Your task to perform on an android device: Open eBay Image 0: 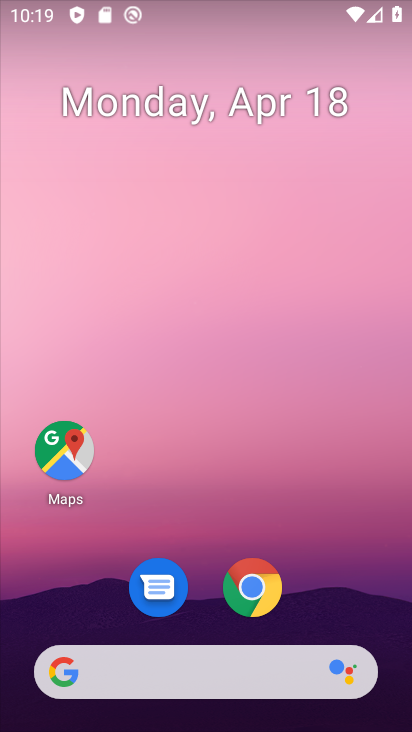
Step 0: drag from (363, 568) to (356, 77)
Your task to perform on an android device: Open eBay Image 1: 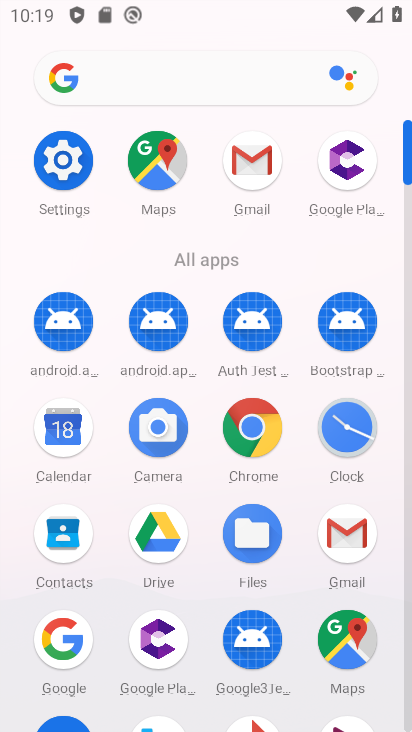
Step 1: click (258, 436)
Your task to perform on an android device: Open eBay Image 2: 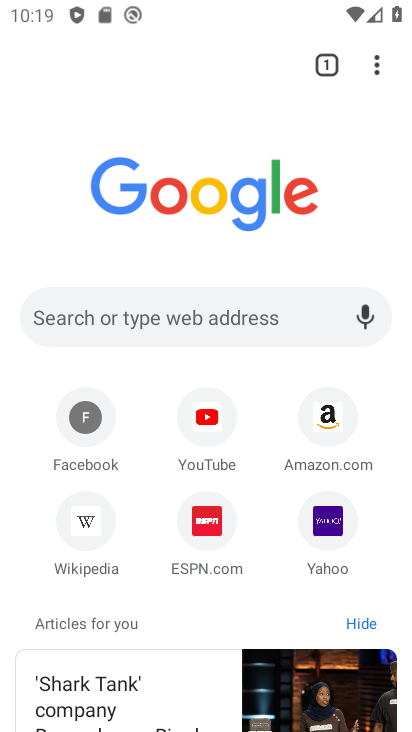
Step 2: click (235, 315)
Your task to perform on an android device: Open eBay Image 3: 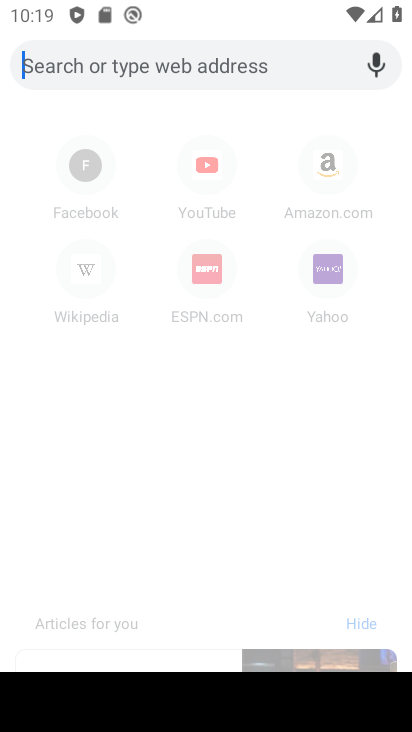
Step 3: type "ebay"
Your task to perform on an android device: Open eBay Image 4: 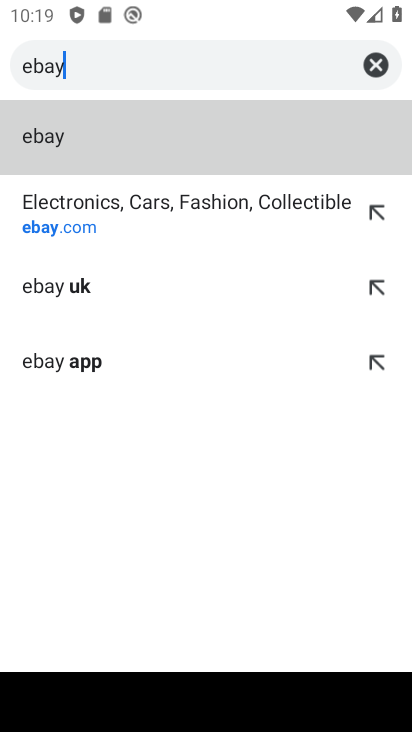
Step 4: click (57, 143)
Your task to perform on an android device: Open eBay Image 5: 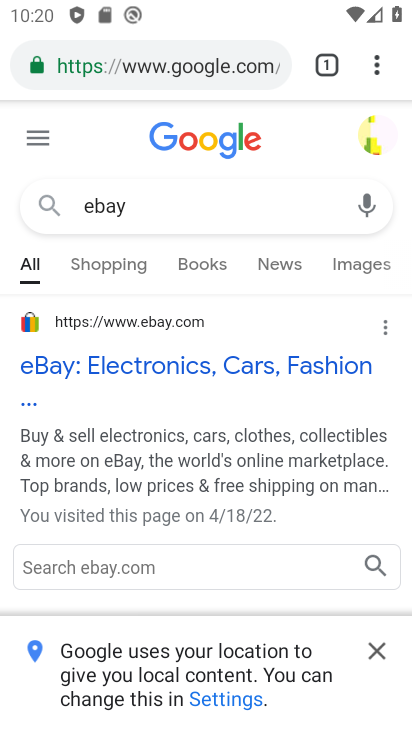
Step 5: click (126, 366)
Your task to perform on an android device: Open eBay Image 6: 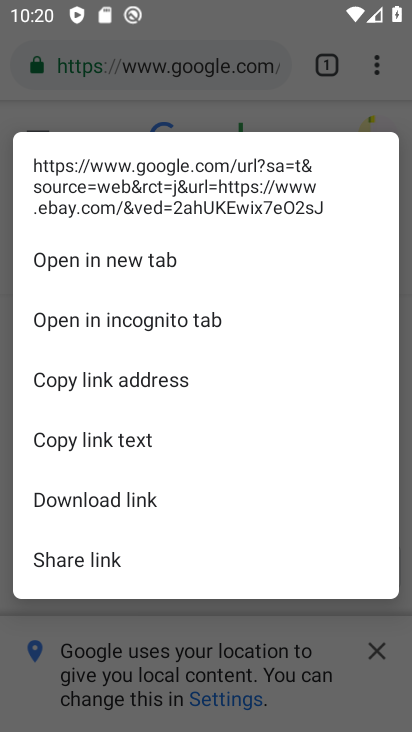
Step 6: click (291, 620)
Your task to perform on an android device: Open eBay Image 7: 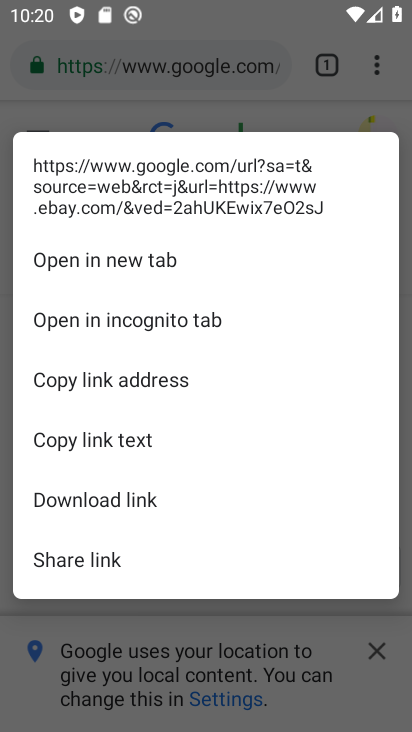
Step 7: click (109, 266)
Your task to perform on an android device: Open eBay Image 8: 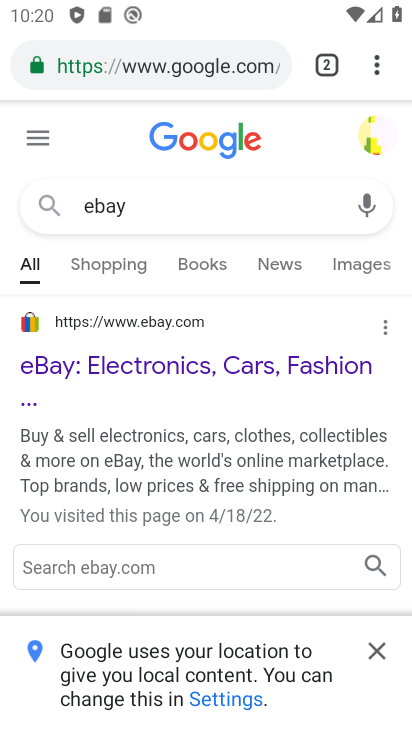
Step 8: task complete